Your task to perform on an android device: find photos in the google photos app Image 0: 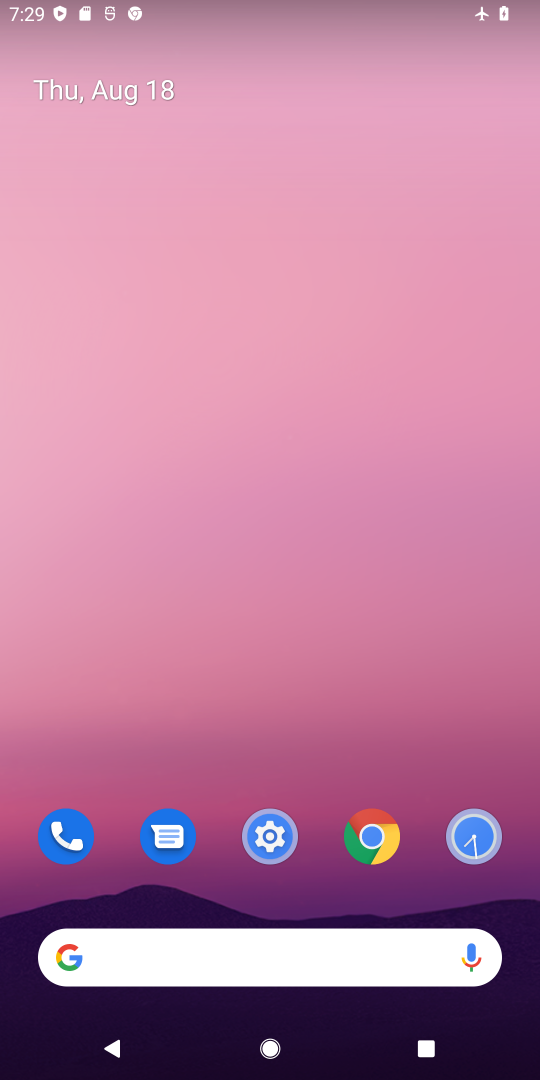
Step 0: drag from (353, 613) to (491, 75)
Your task to perform on an android device: find photos in the google photos app Image 1: 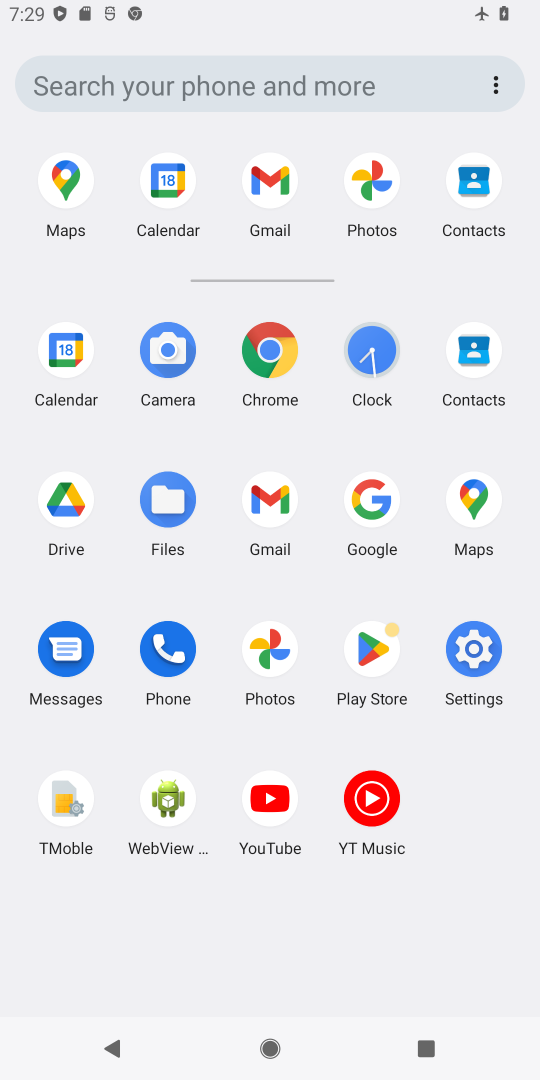
Step 1: click (283, 658)
Your task to perform on an android device: find photos in the google photos app Image 2: 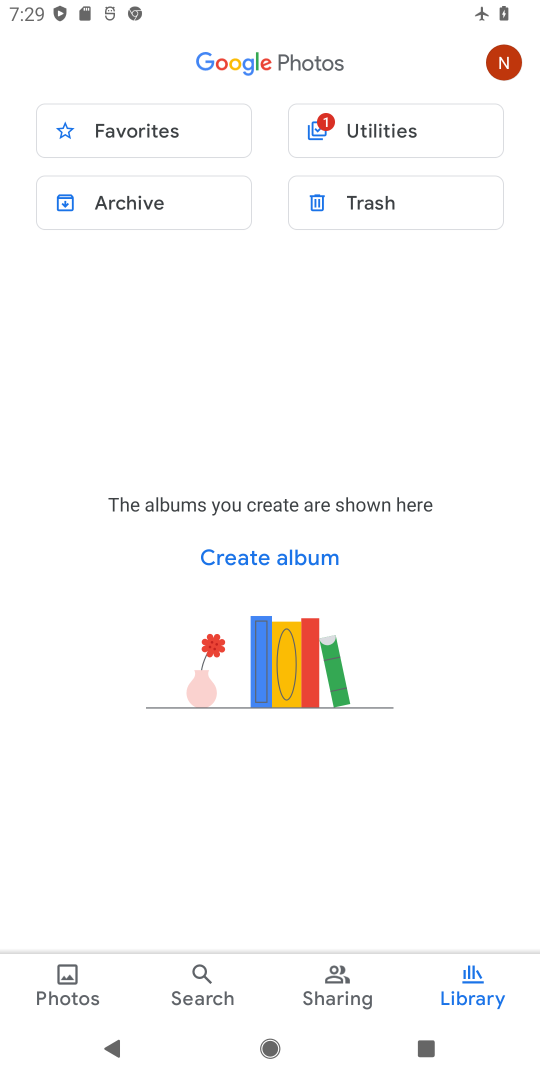
Step 2: click (48, 981)
Your task to perform on an android device: find photos in the google photos app Image 3: 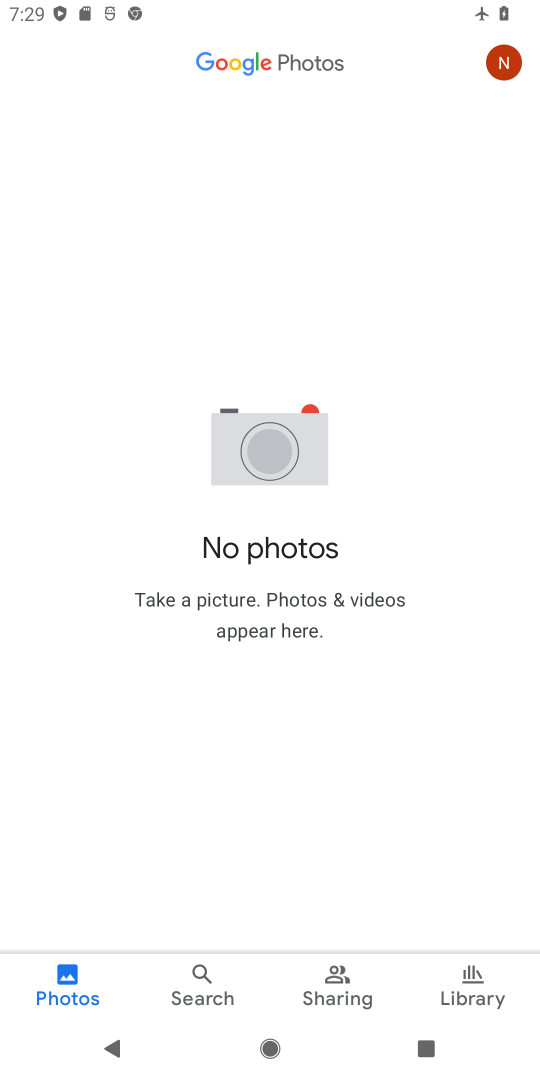
Step 3: task complete